Your task to perform on an android device: Toggle the flashlight Image 0: 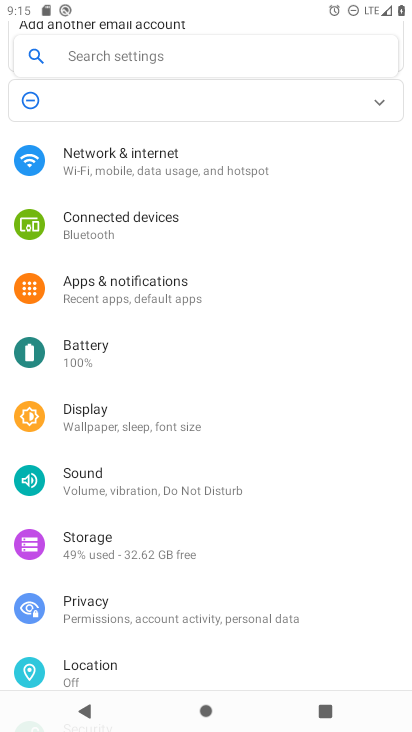
Step 0: press home button
Your task to perform on an android device: Toggle the flashlight Image 1: 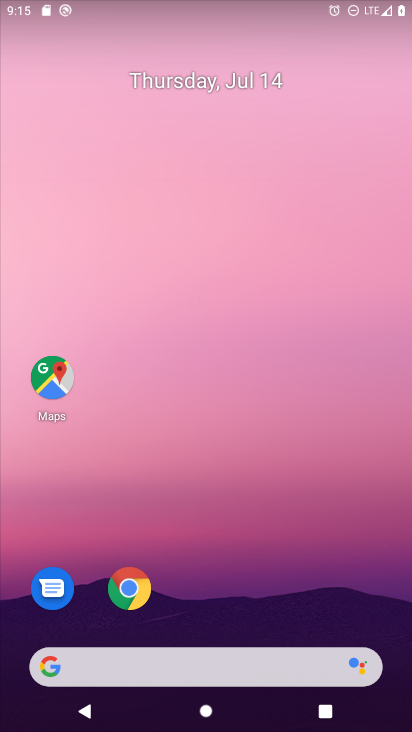
Step 1: drag from (351, 564) to (386, 10)
Your task to perform on an android device: Toggle the flashlight Image 2: 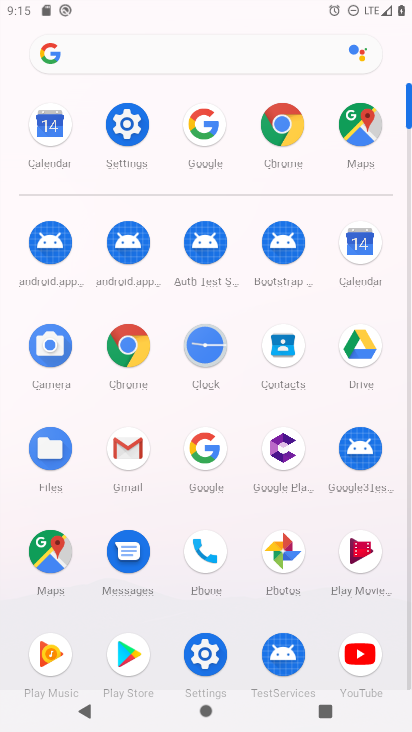
Step 2: click (128, 119)
Your task to perform on an android device: Toggle the flashlight Image 3: 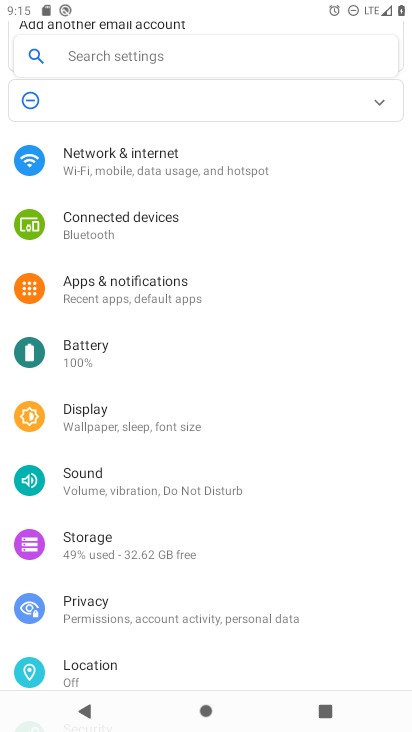
Step 3: task complete